Your task to perform on an android device: Open Chrome and go to the settings page Image 0: 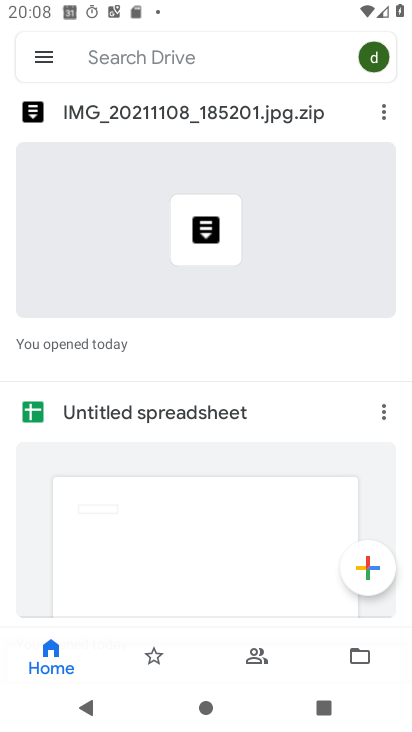
Step 0: press home button
Your task to perform on an android device: Open Chrome and go to the settings page Image 1: 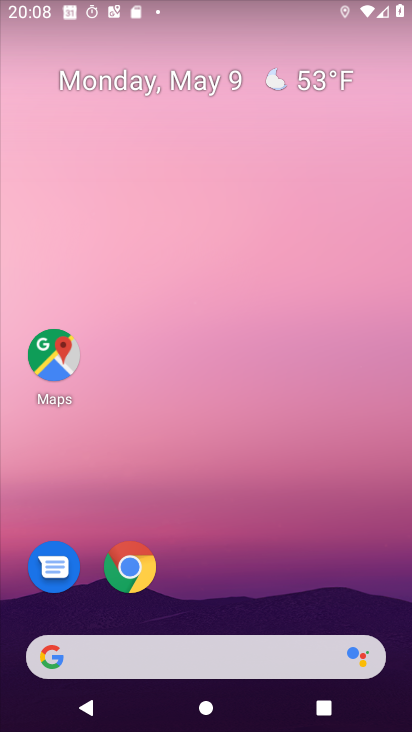
Step 1: click (136, 578)
Your task to perform on an android device: Open Chrome and go to the settings page Image 2: 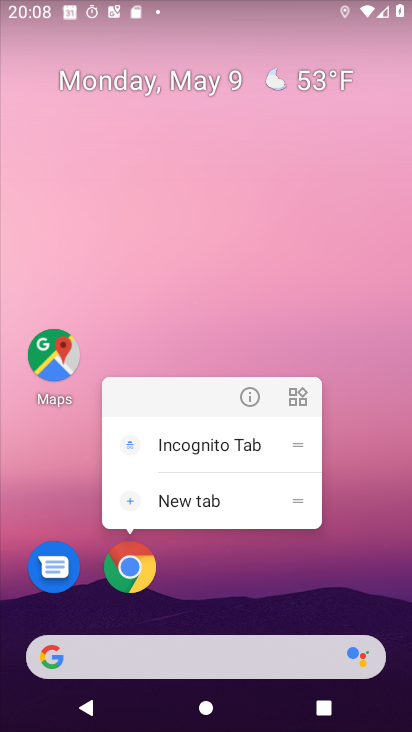
Step 2: click (132, 558)
Your task to perform on an android device: Open Chrome and go to the settings page Image 3: 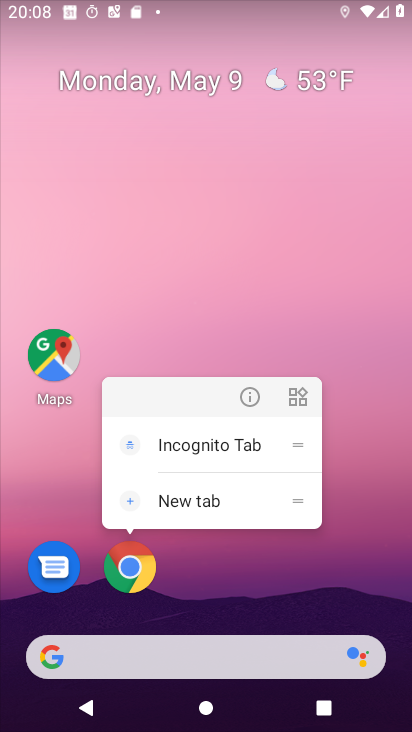
Step 3: click (132, 558)
Your task to perform on an android device: Open Chrome and go to the settings page Image 4: 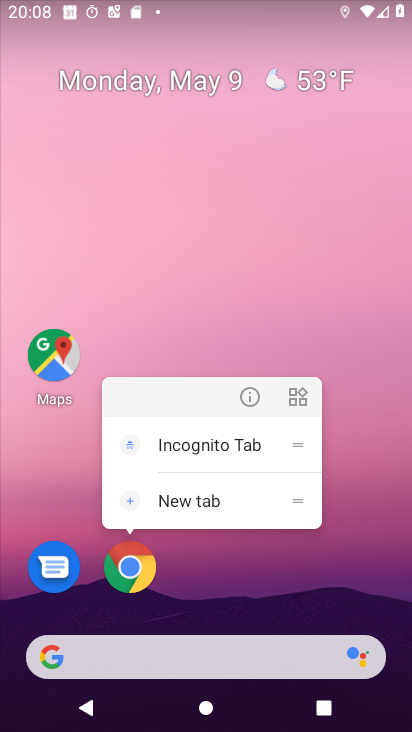
Step 4: click (132, 558)
Your task to perform on an android device: Open Chrome and go to the settings page Image 5: 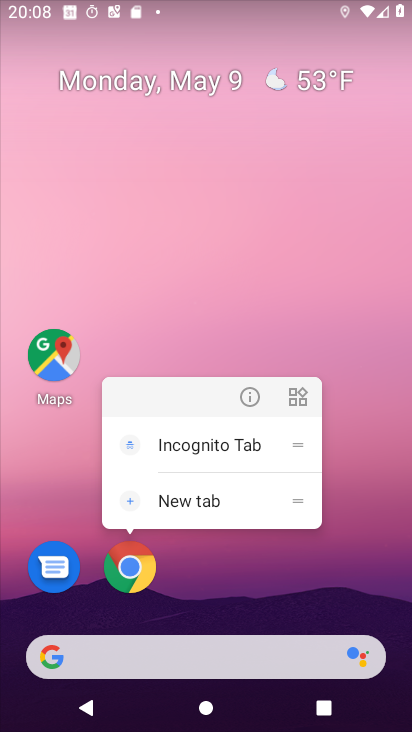
Step 5: click (132, 558)
Your task to perform on an android device: Open Chrome and go to the settings page Image 6: 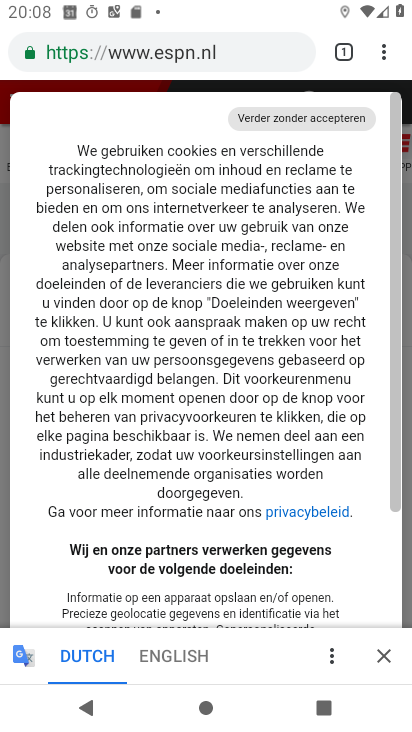
Step 6: click (384, 55)
Your task to perform on an android device: Open Chrome and go to the settings page Image 7: 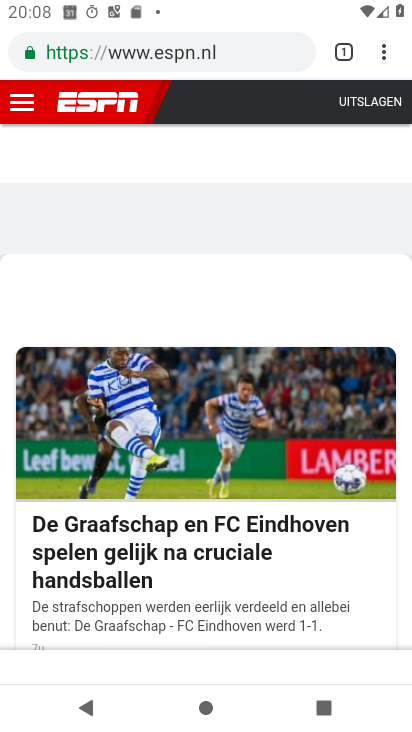
Step 7: click (377, 64)
Your task to perform on an android device: Open Chrome and go to the settings page Image 8: 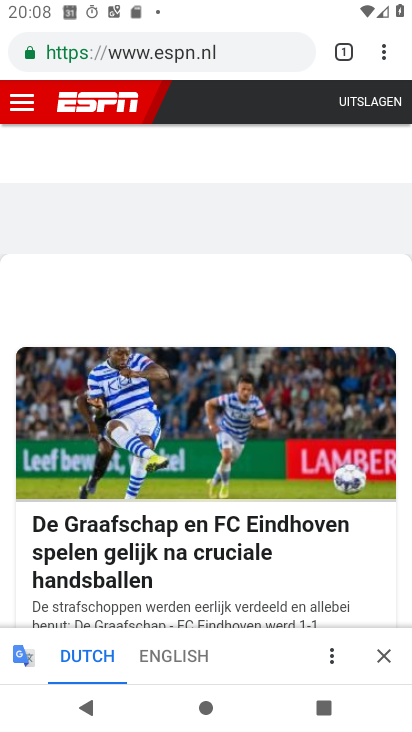
Step 8: click (377, 64)
Your task to perform on an android device: Open Chrome and go to the settings page Image 9: 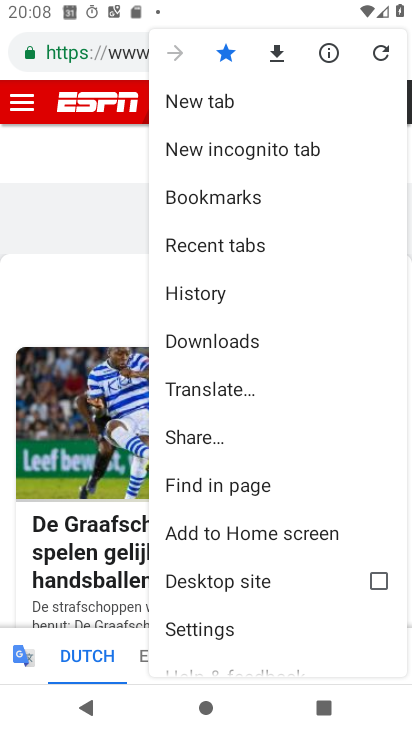
Step 9: click (238, 625)
Your task to perform on an android device: Open Chrome and go to the settings page Image 10: 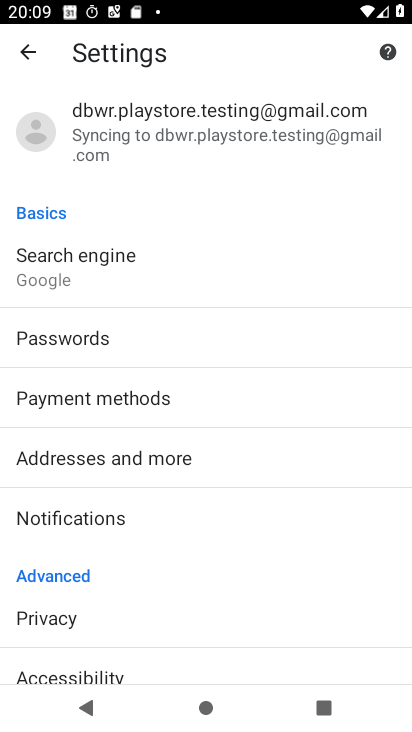
Step 10: task complete